Your task to perform on an android device: Open Google Chrome and open the bookmarks view Image 0: 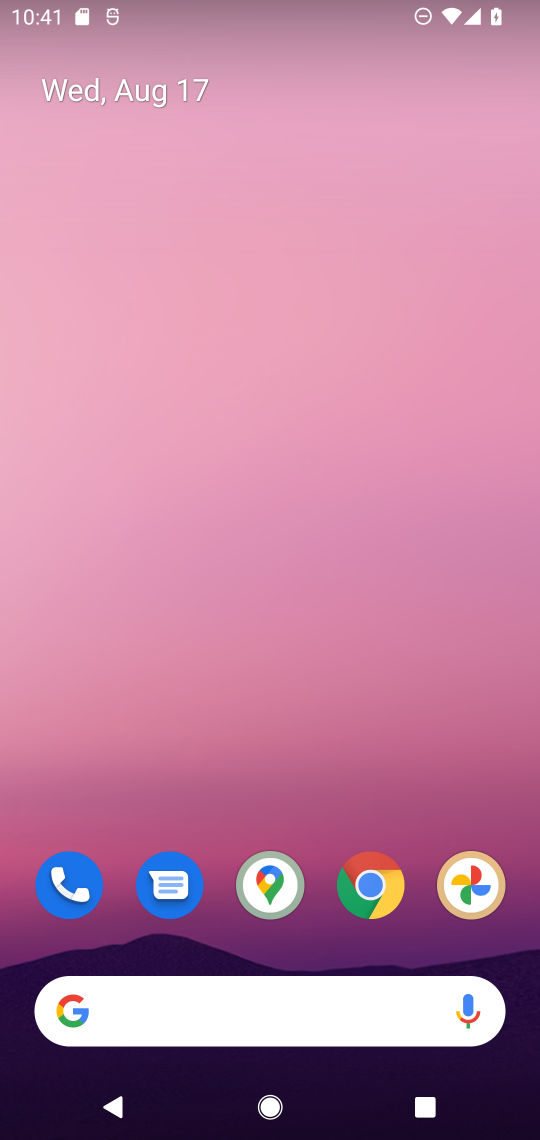
Step 0: click (366, 892)
Your task to perform on an android device: Open Google Chrome and open the bookmarks view Image 1: 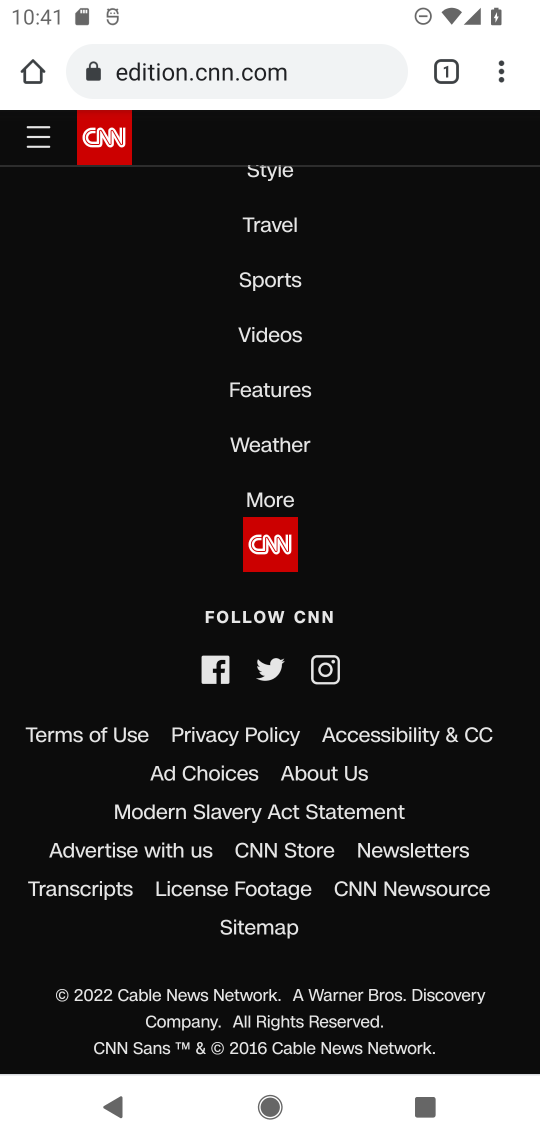
Step 1: click (494, 84)
Your task to perform on an android device: Open Google Chrome and open the bookmarks view Image 2: 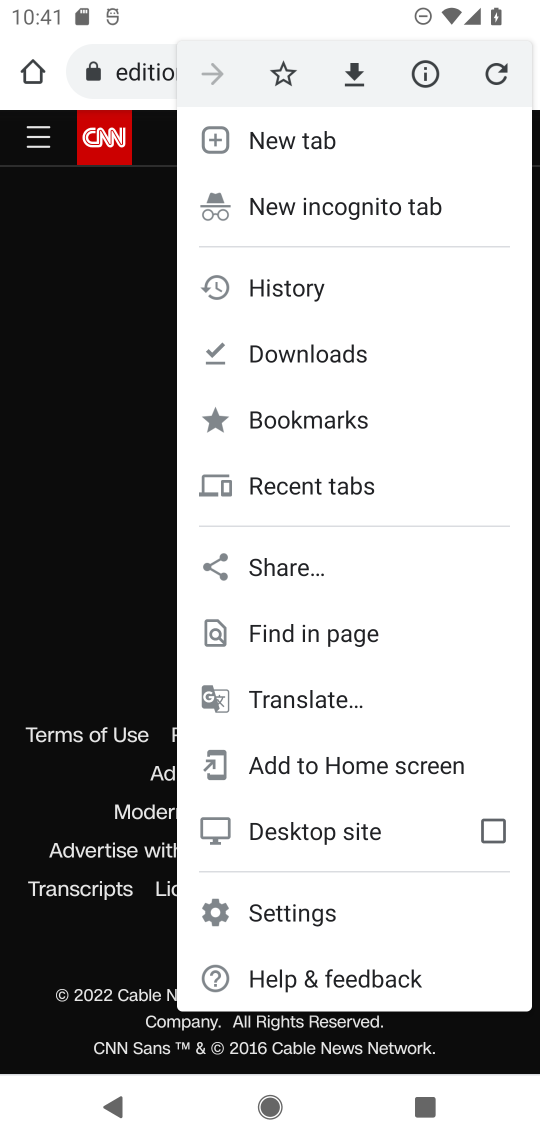
Step 2: click (280, 416)
Your task to perform on an android device: Open Google Chrome and open the bookmarks view Image 3: 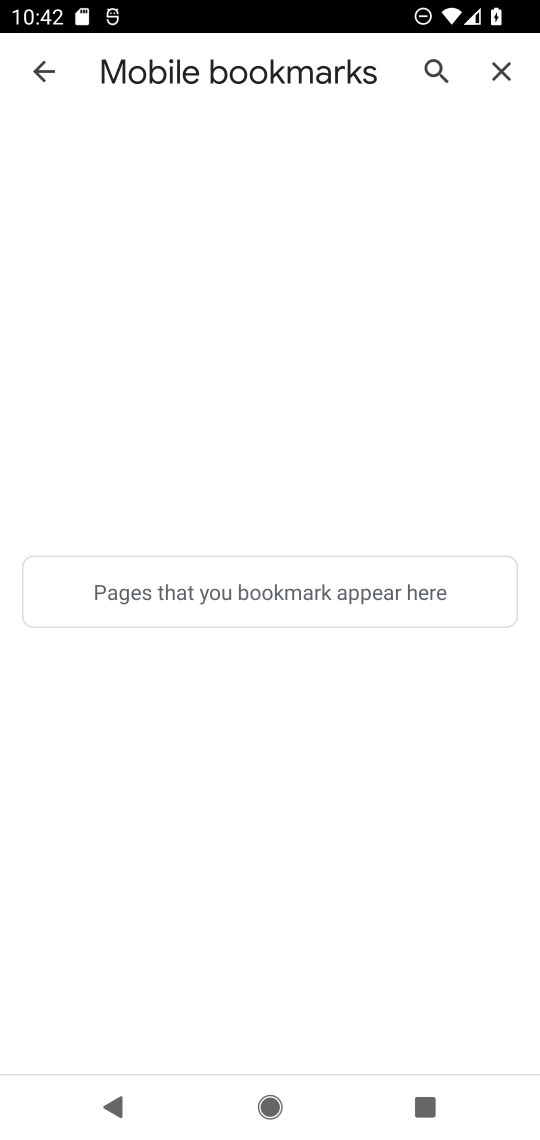
Step 3: task complete